Your task to perform on an android device: toggle javascript in the chrome app Image 0: 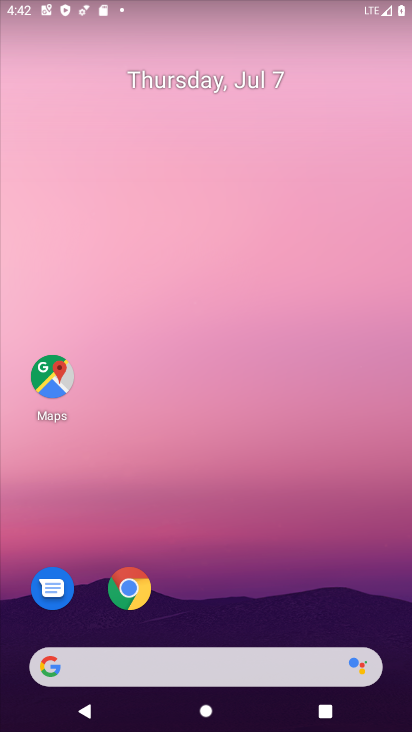
Step 0: drag from (282, 496) to (319, 135)
Your task to perform on an android device: toggle javascript in the chrome app Image 1: 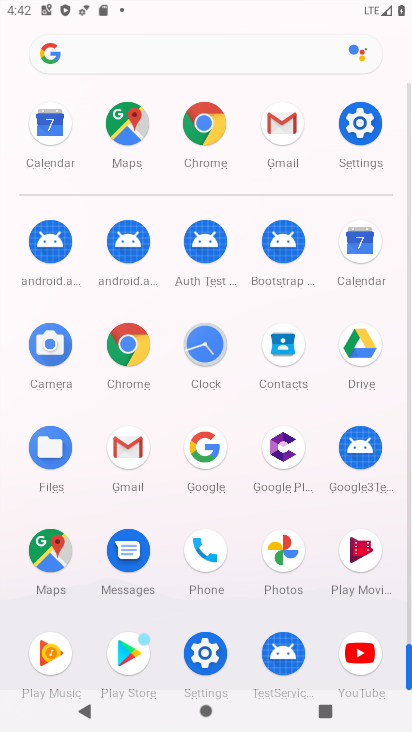
Step 1: click (121, 347)
Your task to perform on an android device: toggle javascript in the chrome app Image 2: 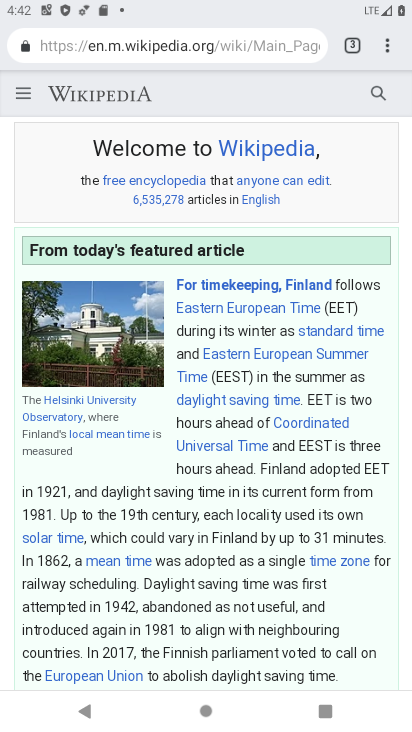
Step 2: drag from (387, 43) to (247, 558)
Your task to perform on an android device: toggle javascript in the chrome app Image 3: 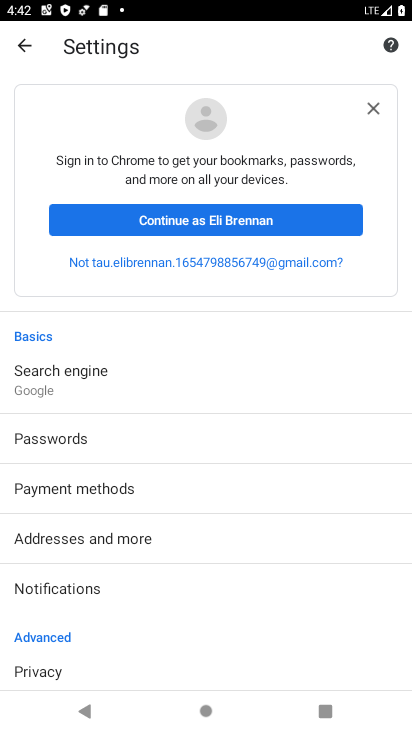
Step 3: drag from (171, 635) to (173, 221)
Your task to perform on an android device: toggle javascript in the chrome app Image 4: 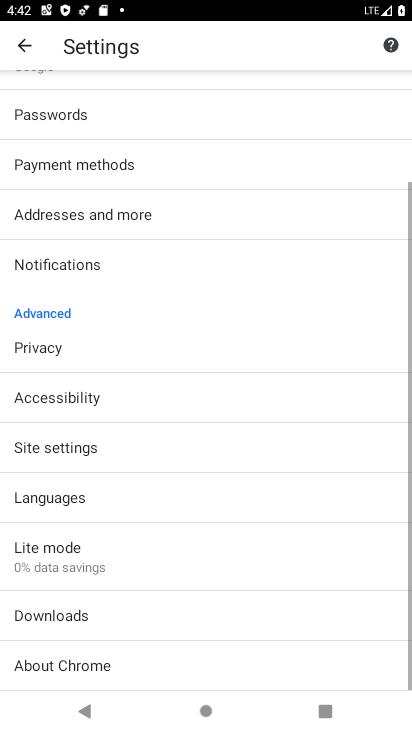
Step 4: click (93, 448)
Your task to perform on an android device: toggle javascript in the chrome app Image 5: 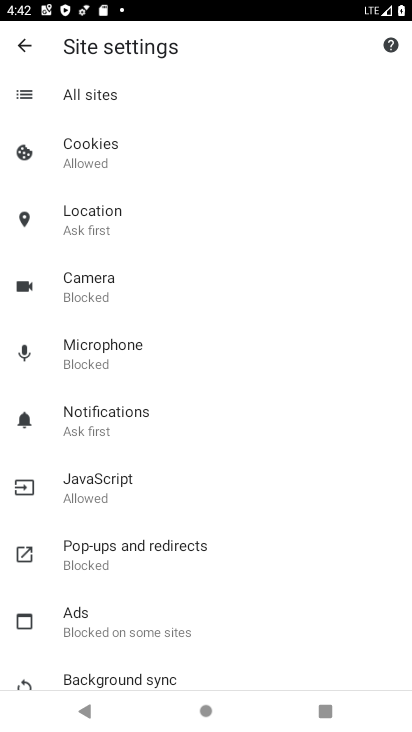
Step 5: click (128, 496)
Your task to perform on an android device: toggle javascript in the chrome app Image 6: 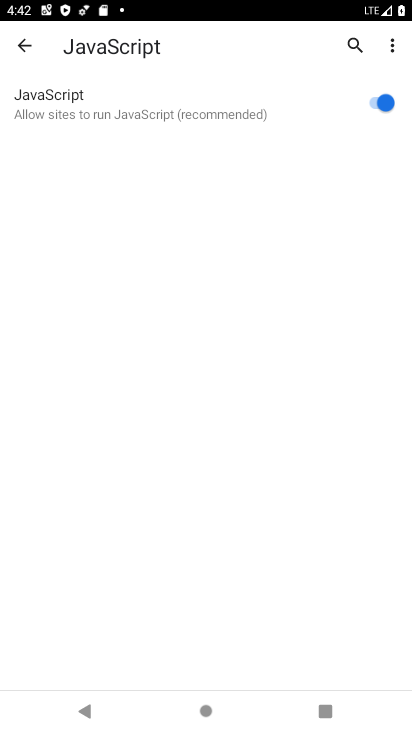
Step 6: click (391, 103)
Your task to perform on an android device: toggle javascript in the chrome app Image 7: 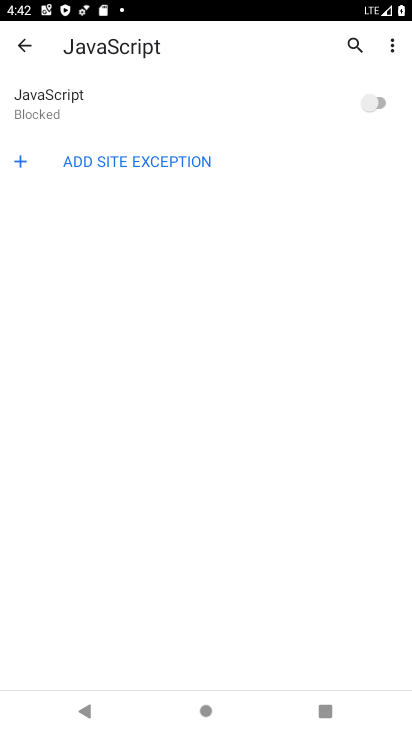
Step 7: task complete